Your task to perform on an android device: Open the map Image 0: 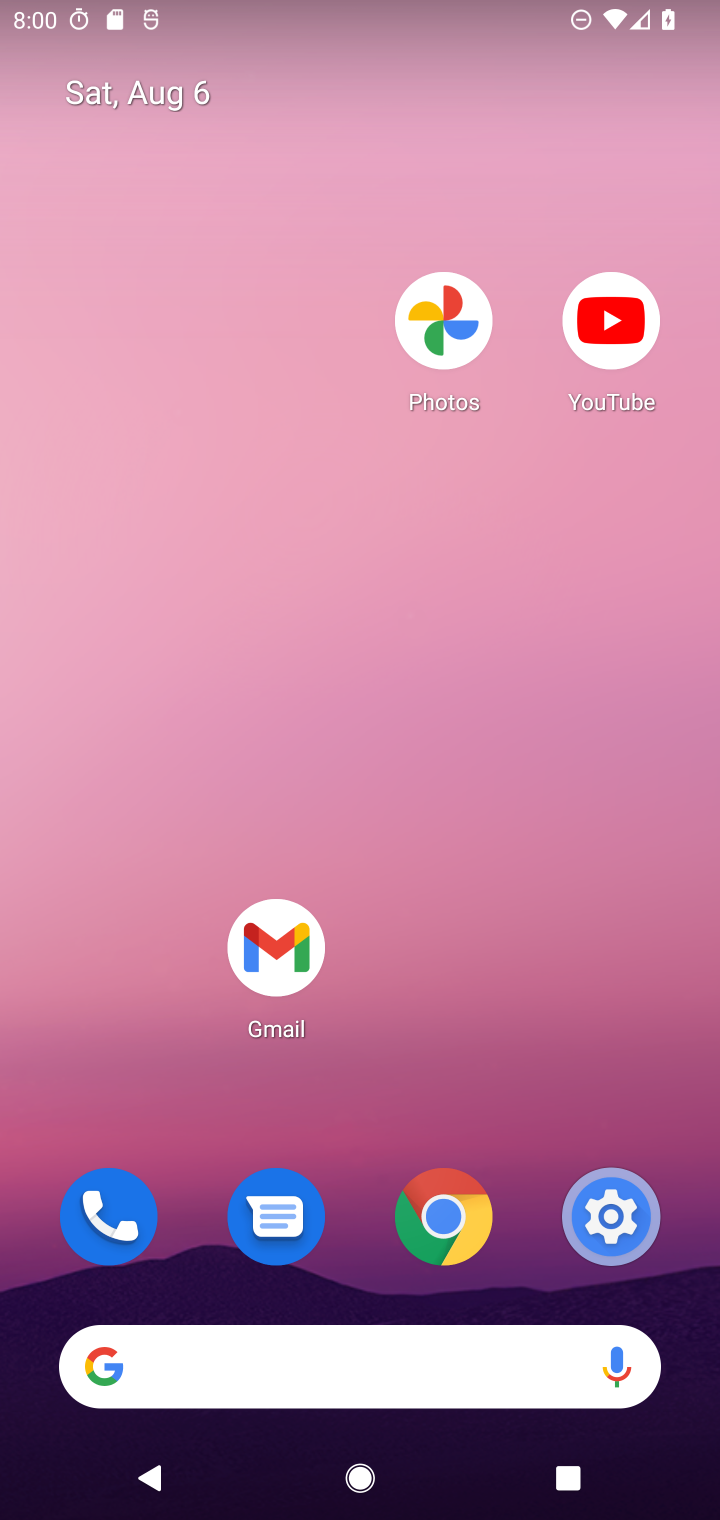
Step 0: drag from (490, 1092) to (374, 26)
Your task to perform on an android device: Open the map Image 1: 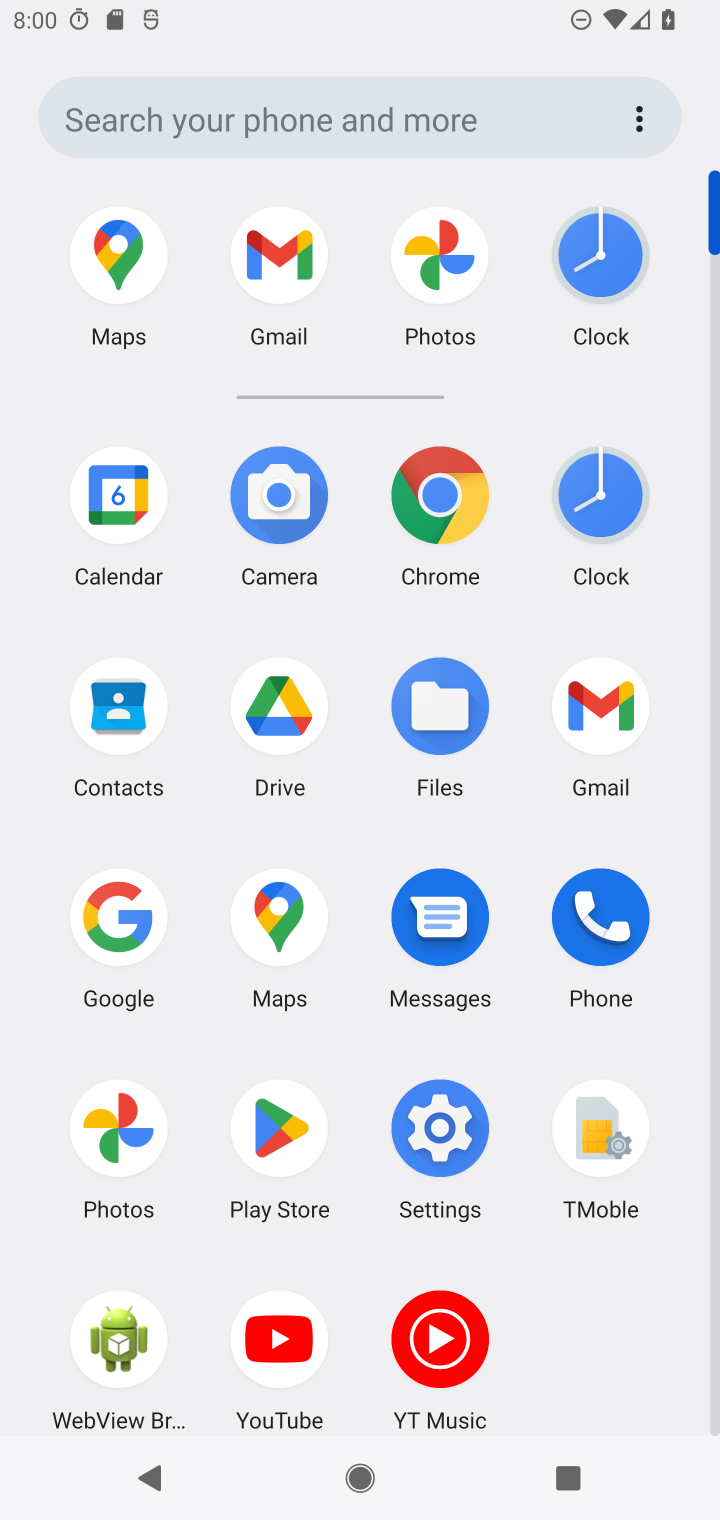
Step 1: click (269, 913)
Your task to perform on an android device: Open the map Image 2: 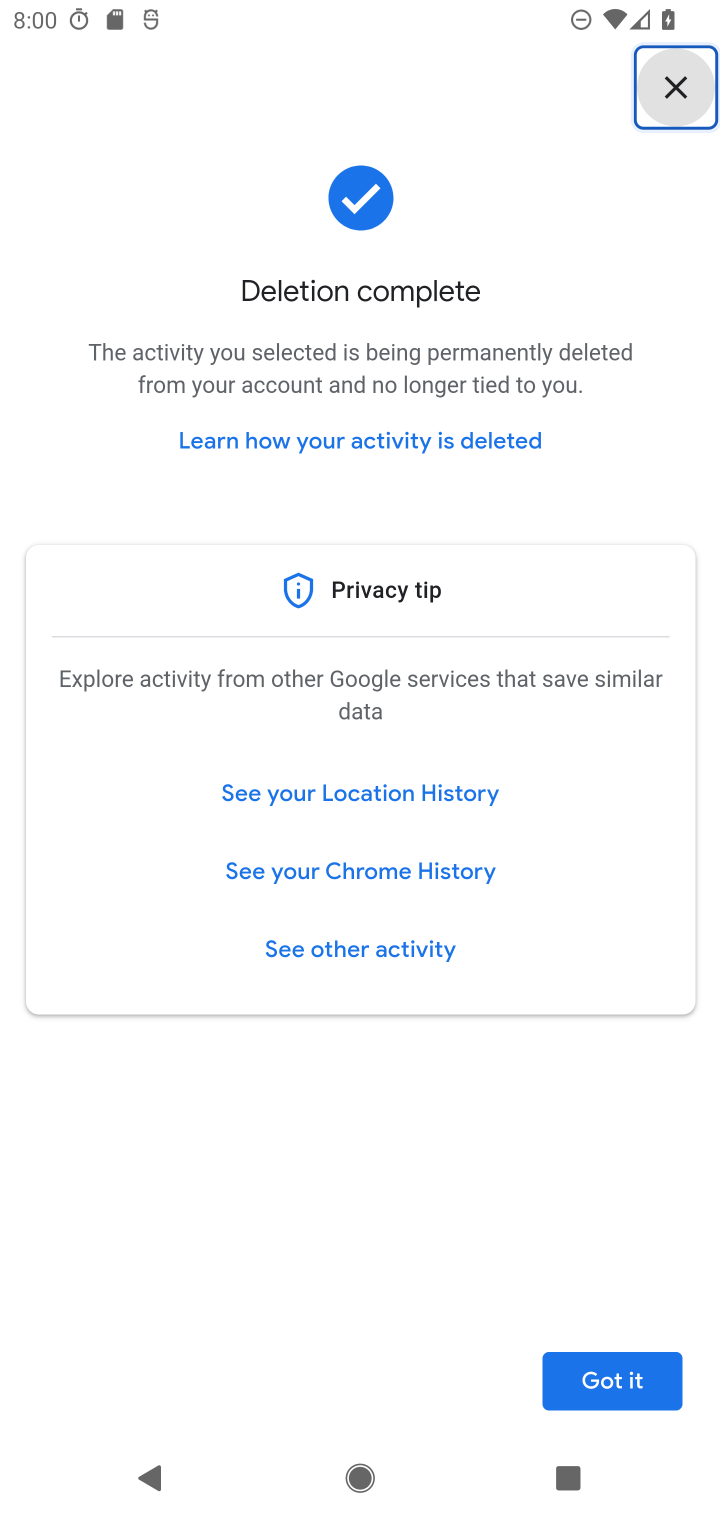
Step 2: task complete